Your task to perform on an android device: turn on javascript in the chrome app Image 0: 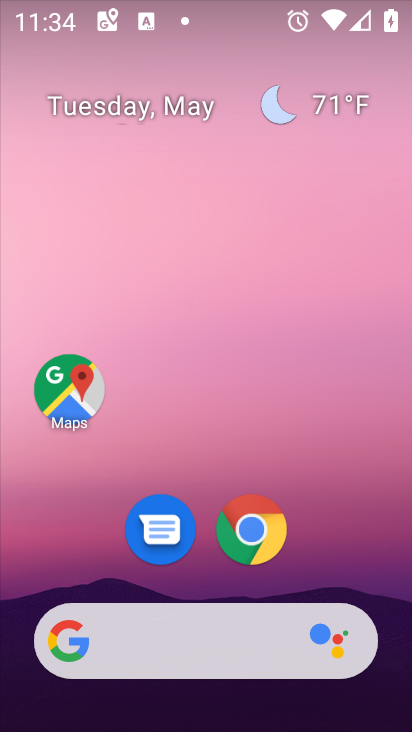
Step 0: click (259, 543)
Your task to perform on an android device: turn on javascript in the chrome app Image 1: 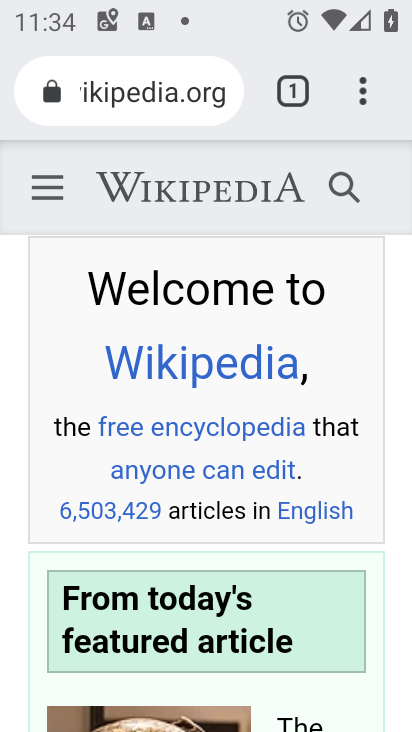
Step 1: click (365, 90)
Your task to perform on an android device: turn on javascript in the chrome app Image 2: 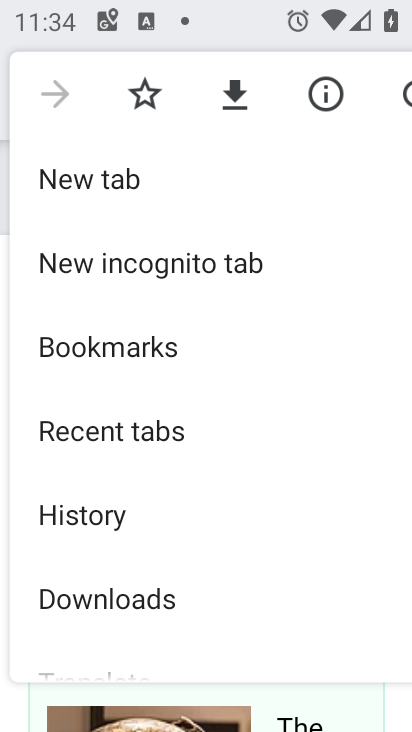
Step 2: drag from (211, 560) to (311, 123)
Your task to perform on an android device: turn on javascript in the chrome app Image 3: 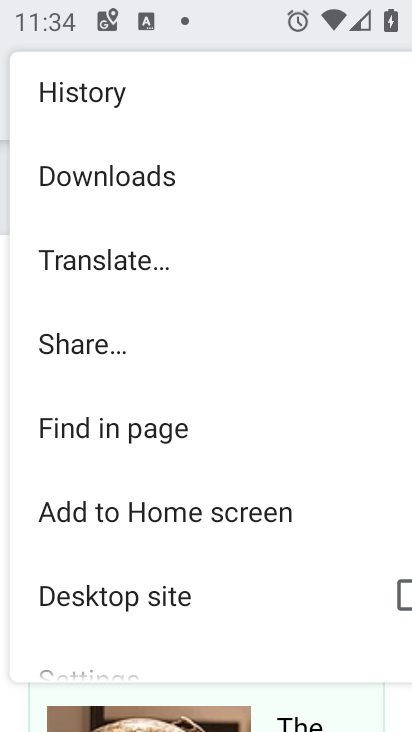
Step 3: drag from (176, 570) to (254, 134)
Your task to perform on an android device: turn on javascript in the chrome app Image 4: 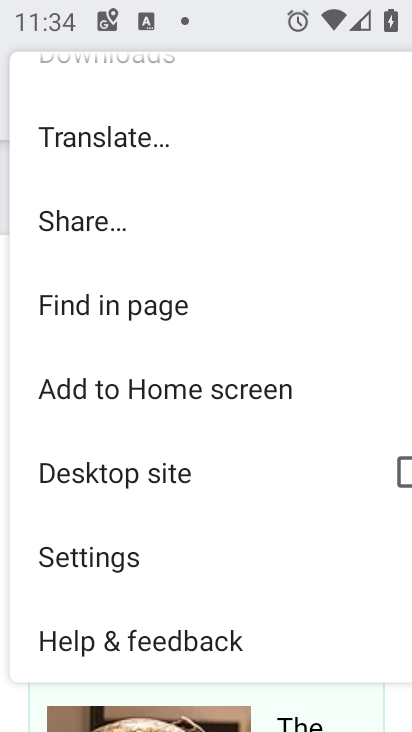
Step 4: click (135, 561)
Your task to perform on an android device: turn on javascript in the chrome app Image 5: 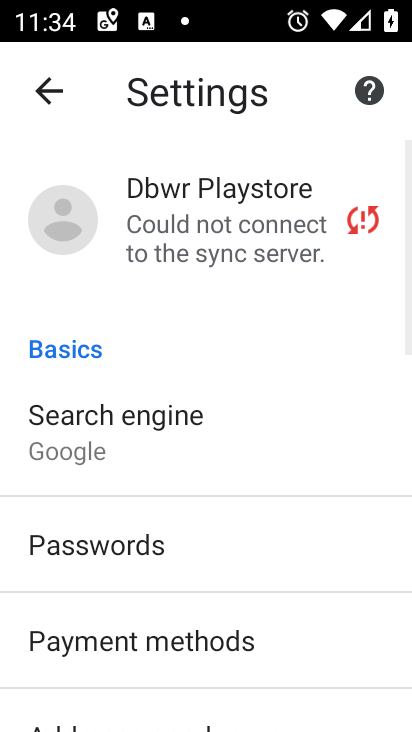
Step 5: drag from (135, 561) to (225, 206)
Your task to perform on an android device: turn on javascript in the chrome app Image 6: 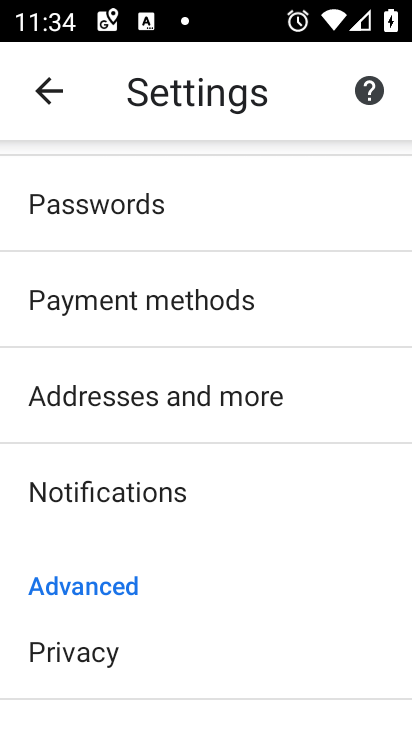
Step 6: drag from (179, 643) to (214, 225)
Your task to perform on an android device: turn on javascript in the chrome app Image 7: 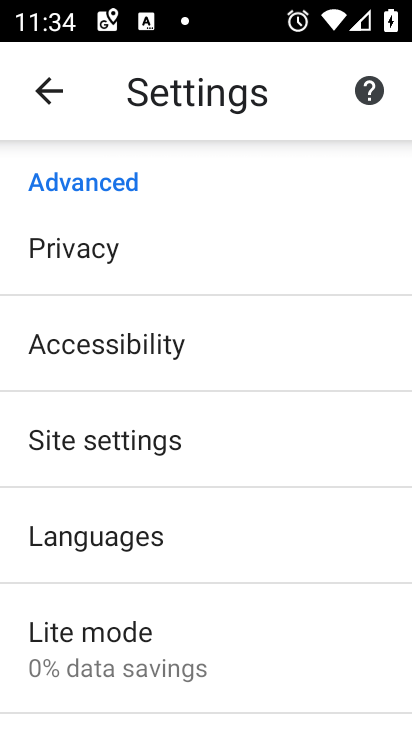
Step 7: drag from (195, 594) to (240, 313)
Your task to perform on an android device: turn on javascript in the chrome app Image 8: 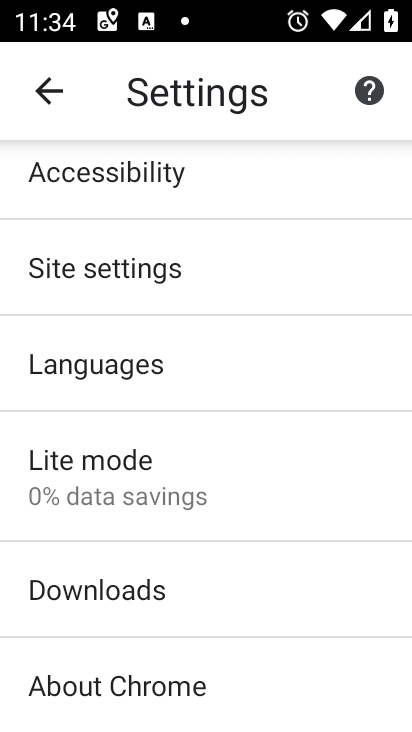
Step 8: drag from (155, 607) to (214, 305)
Your task to perform on an android device: turn on javascript in the chrome app Image 9: 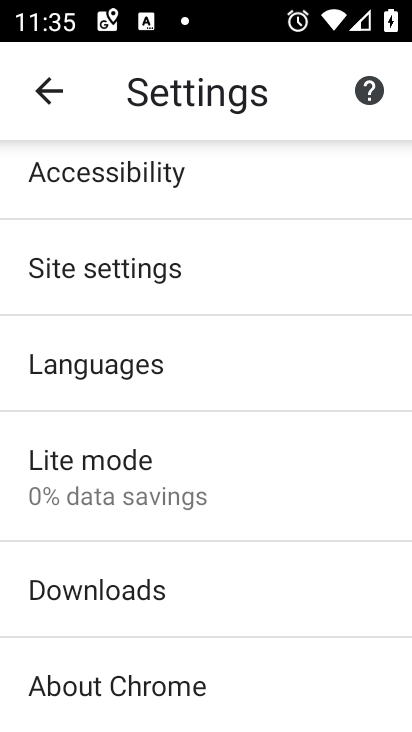
Step 9: drag from (150, 553) to (262, 279)
Your task to perform on an android device: turn on javascript in the chrome app Image 10: 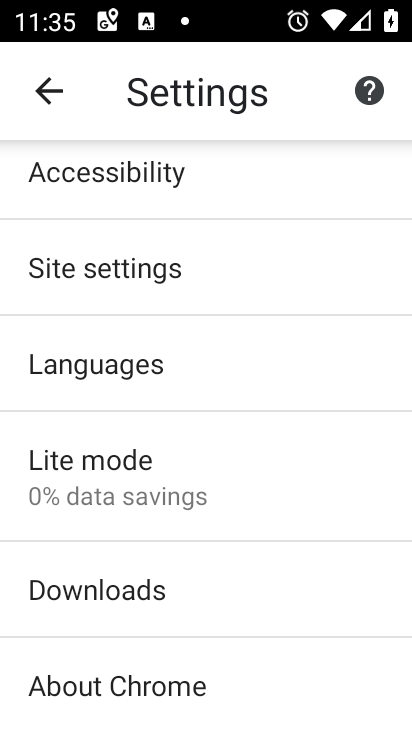
Step 10: drag from (187, 595) to (262, 283)
Your task to perform on an android device: turn on javascript in the chrome app Image 11: 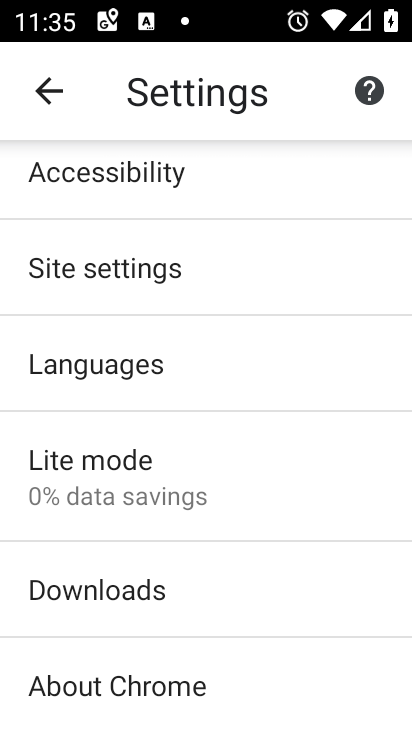
Step 11: drag from (165, 612) to (268, 320)
Your task to perform on an android device: turn on javascript in the chrome app Image 12: 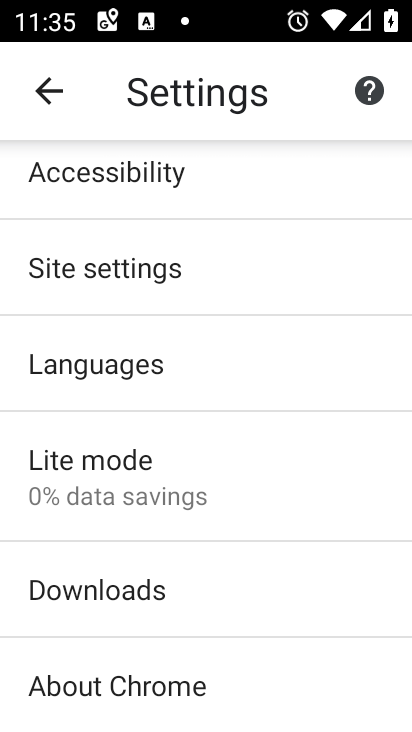
Step 12: drag from (159, 528) to (258, 240)
Your task to perform on an android device: turn on javascript in the chrome app Image 13: 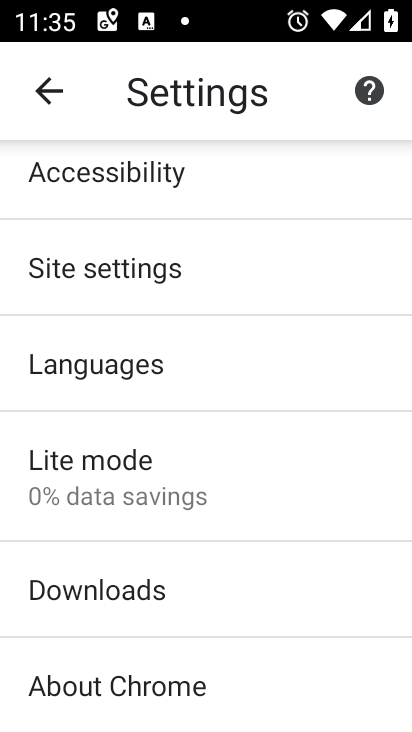
Step 13: drag from (187, 556) to (253, 247)
Your task to perform on an android device: turn on javascript in the chrome app Image 14: 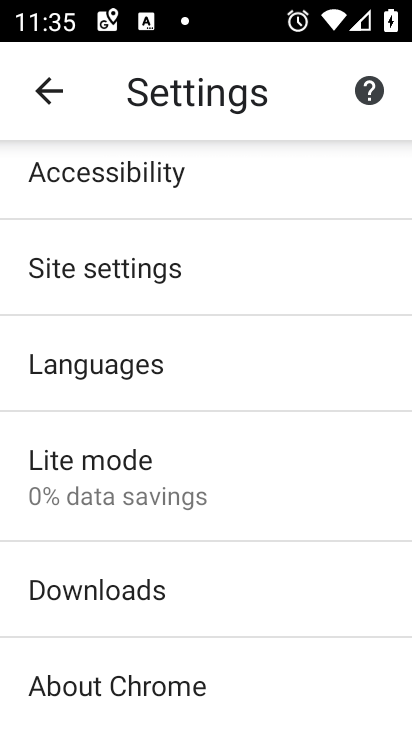
Step 14: drag from (186, 543) to (206, 375)
Your task to perform on an android device: turn on javascript in the chrome app Image 15: 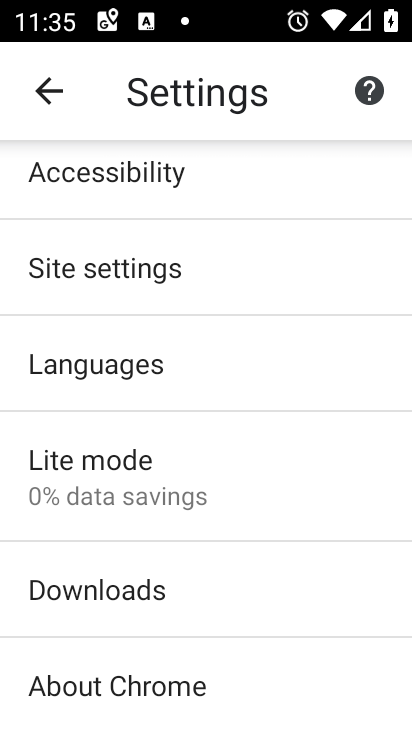
Step 15: click (189, 275)
Your task to perform on an android device: turn on javascript in the chrome app Image 16: 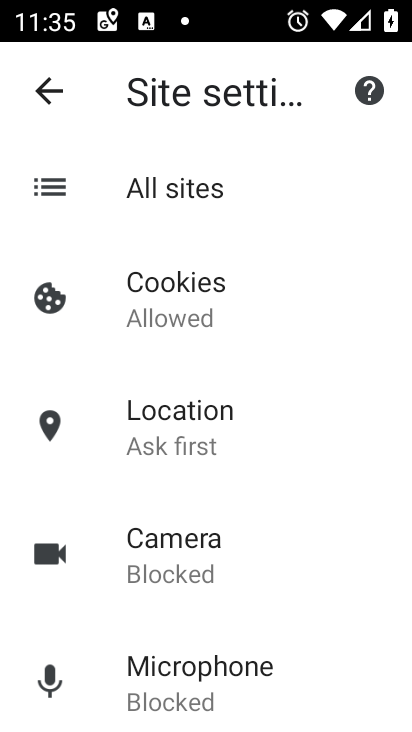
Step 16: drag from (202, 572) to (246, 317)
Your task to perform on an android device: turn on javascript in the chrome app Image 17: 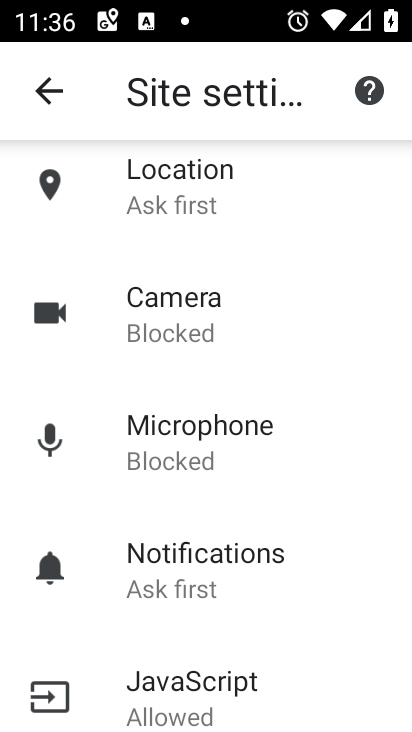
Step 17: click (208, 677)
Your task to perform on an android device: turn on javascript in the chrome app Image 18: 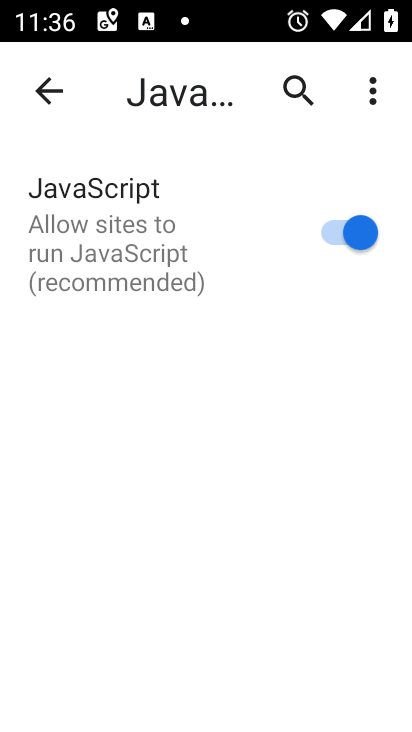
Step 18: task complete